Your task to perform on an android device: Search for sushi restaurants on Maps Image 0: 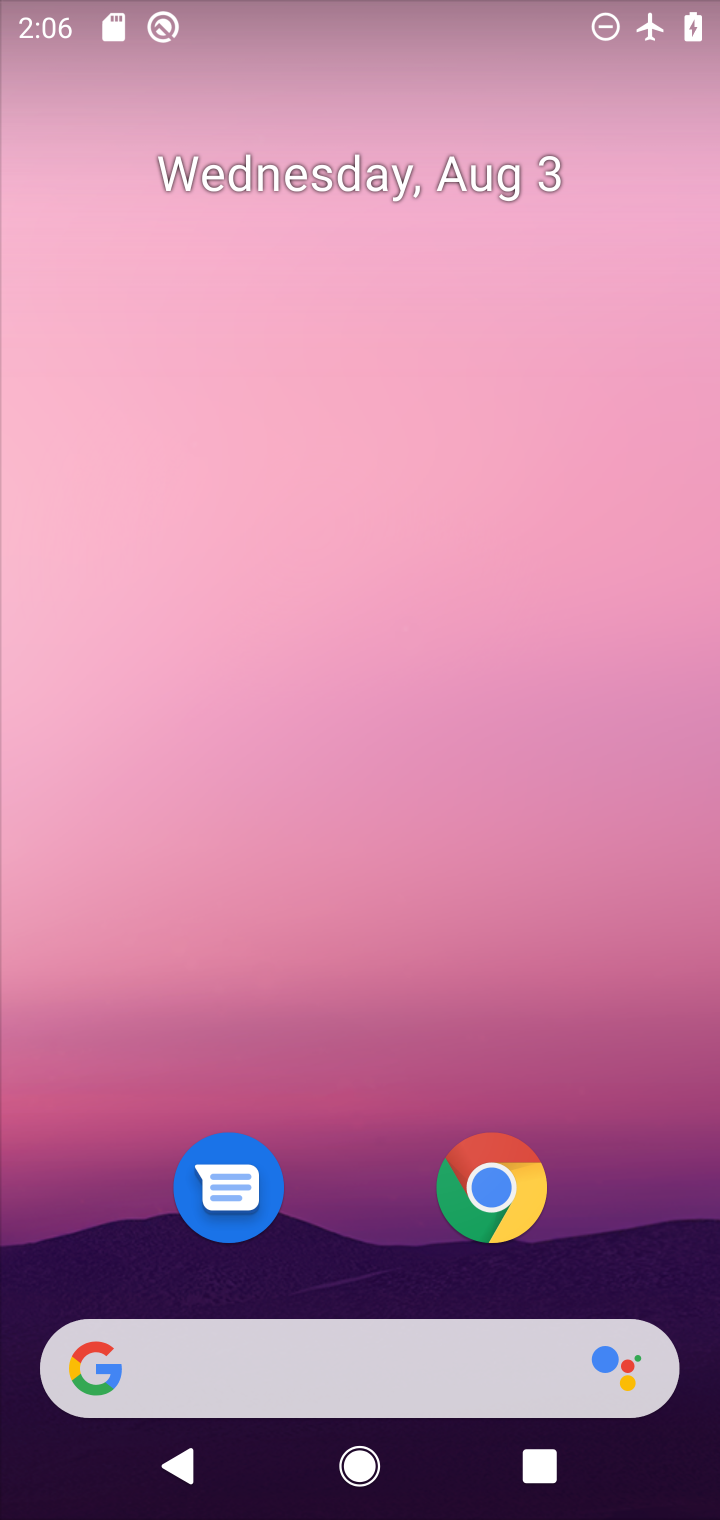
Step 0: click (520, 746)
Your task to perform on an android device: Search for sushi restaurants on Maps Image 1: 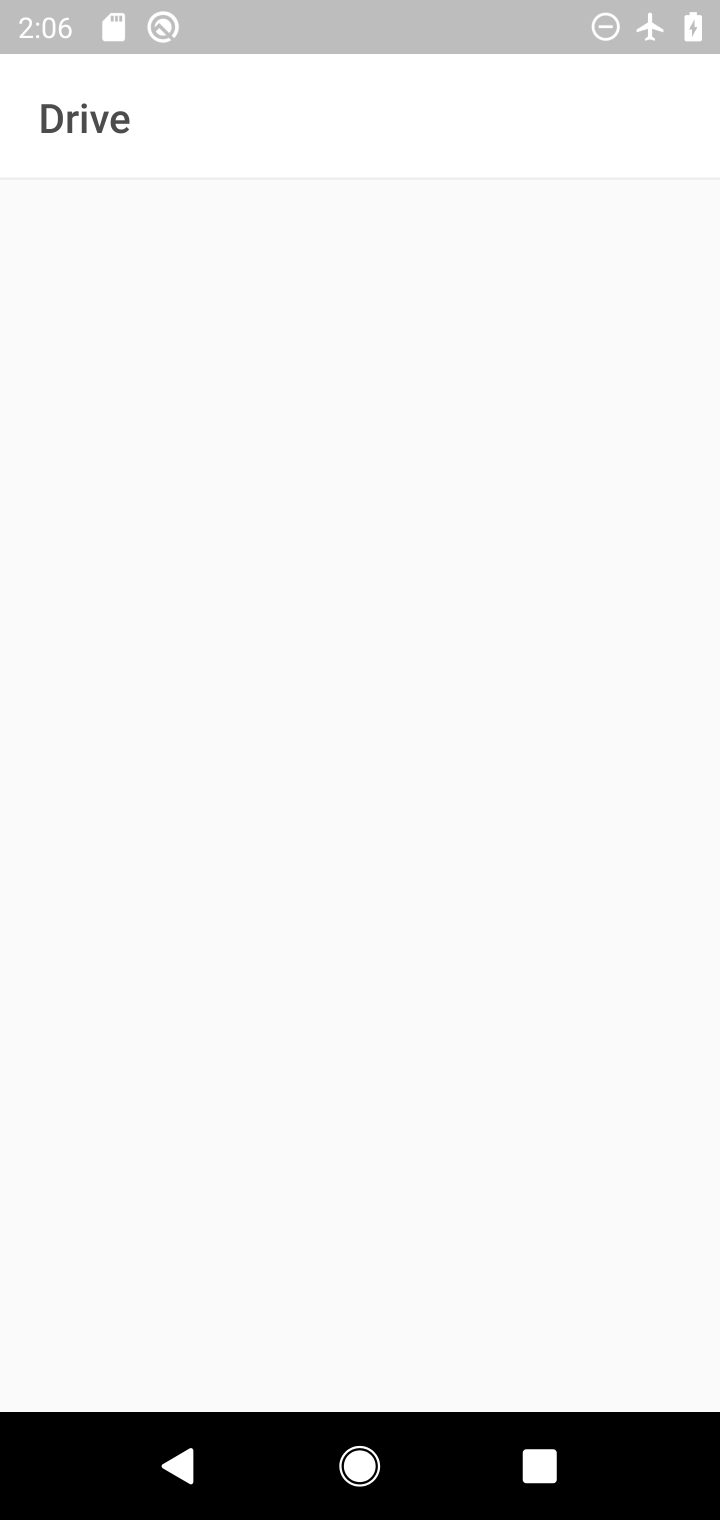
Step 1: press home button
Your task to perform on an android device: Search for sushi restaurants on Maps Image 2: 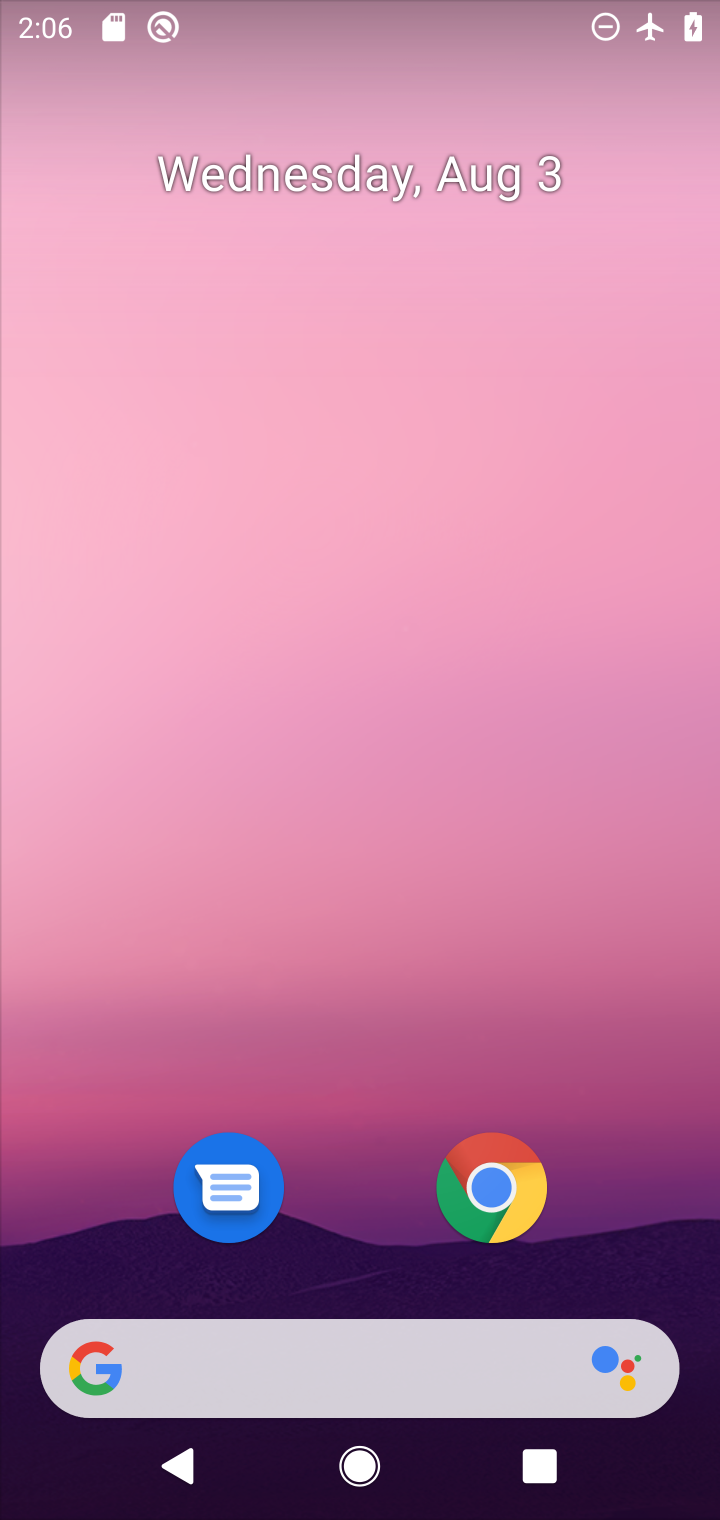
Step 2: drag from (401, 1092) to (523, 0)
Your task to perform on an android device: Search for sushi restaurants on Maps Image 3: 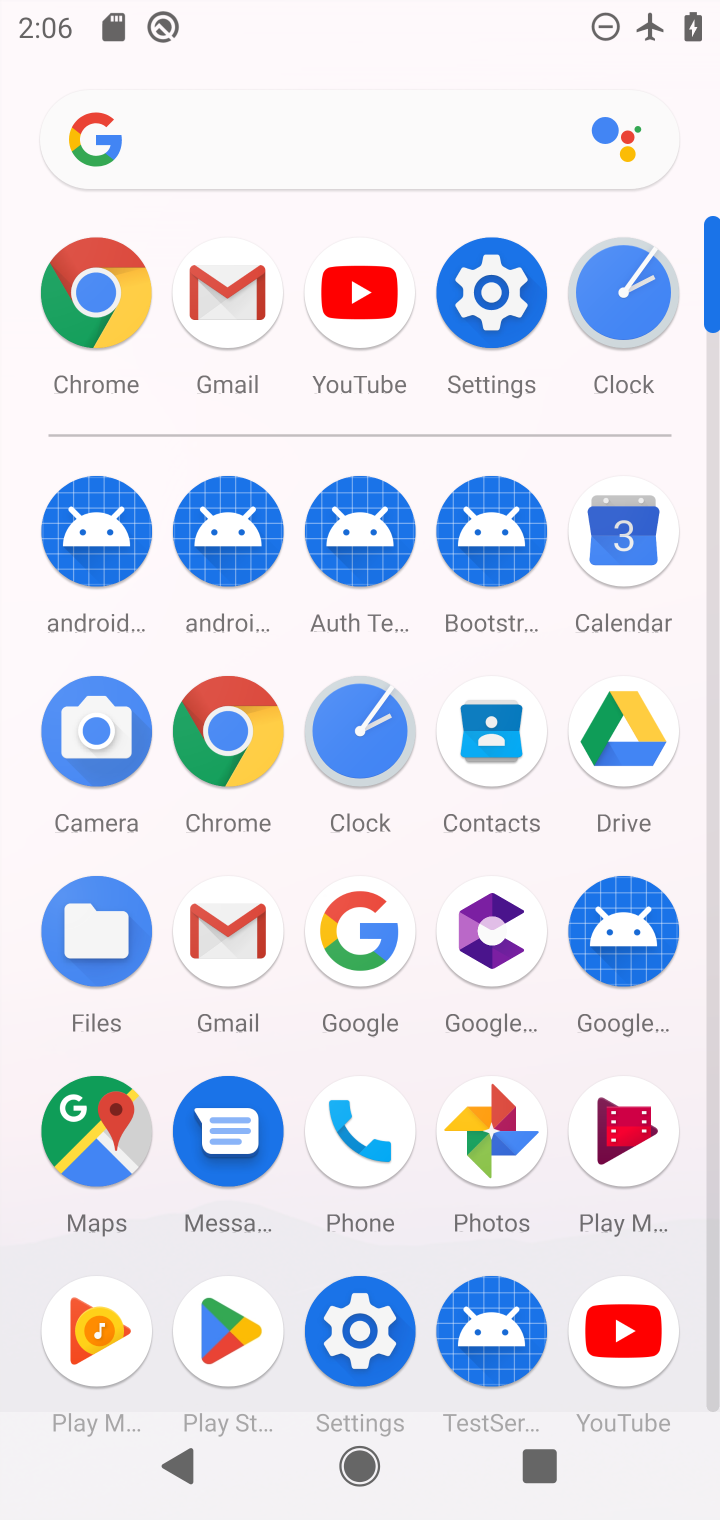
Step 3: click (105, 1146)
Your task to perform on an android device: Search for sushi restaurants on Maps Image 4: 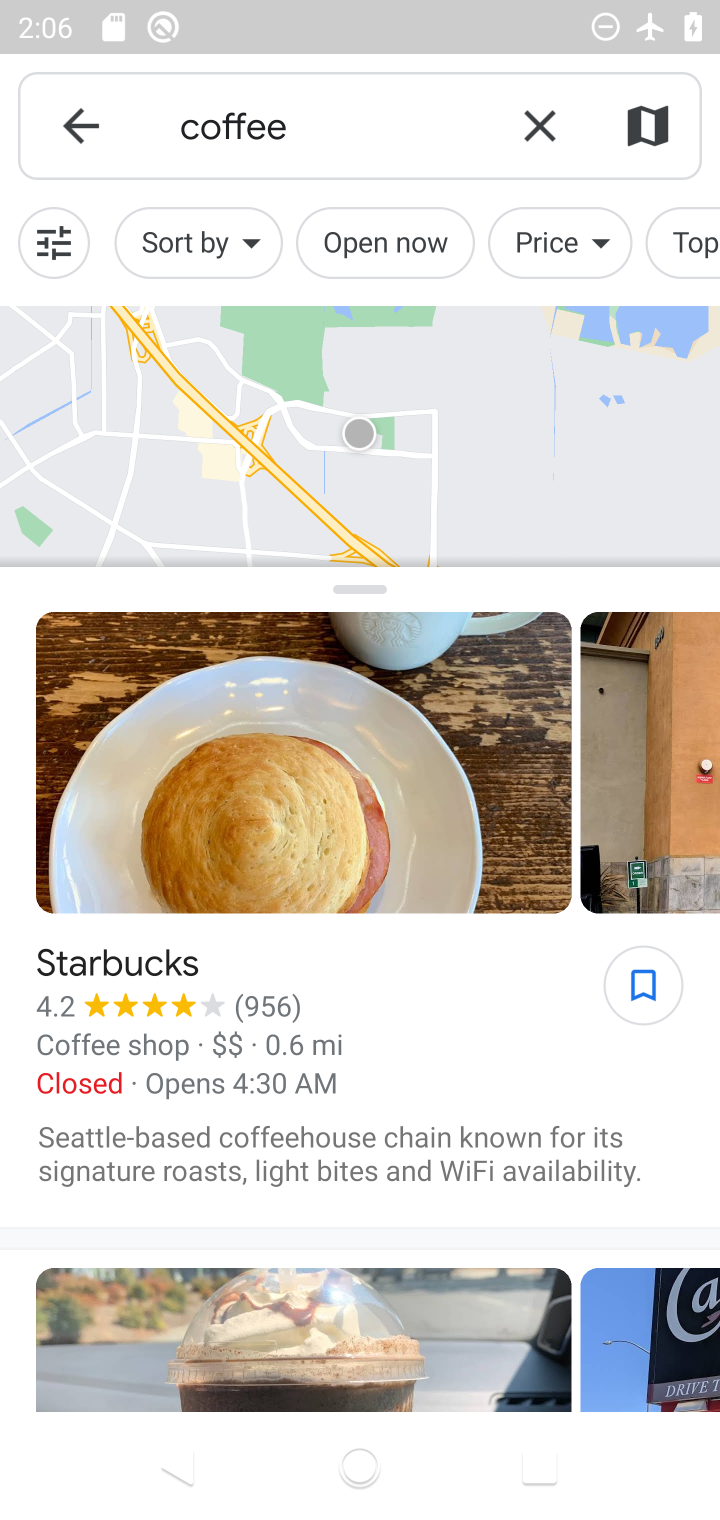
Step 4: click (516, 115)
Your task to perform on an android device: Search for sushi restaurants on Maps Image 5: 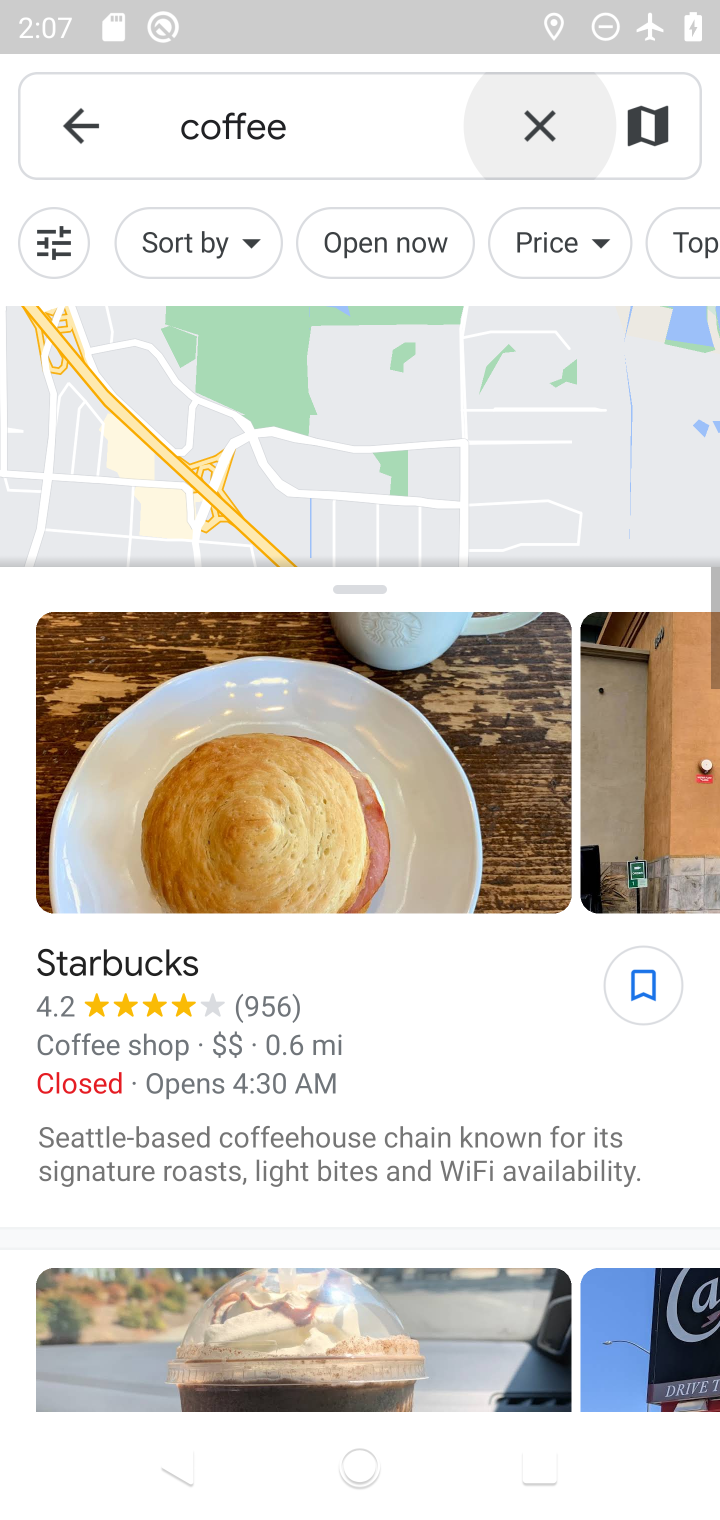
Step 5: click (369, 119)
Your task to perform on an android device: Search for sushi restaurants on Maps Image 6: 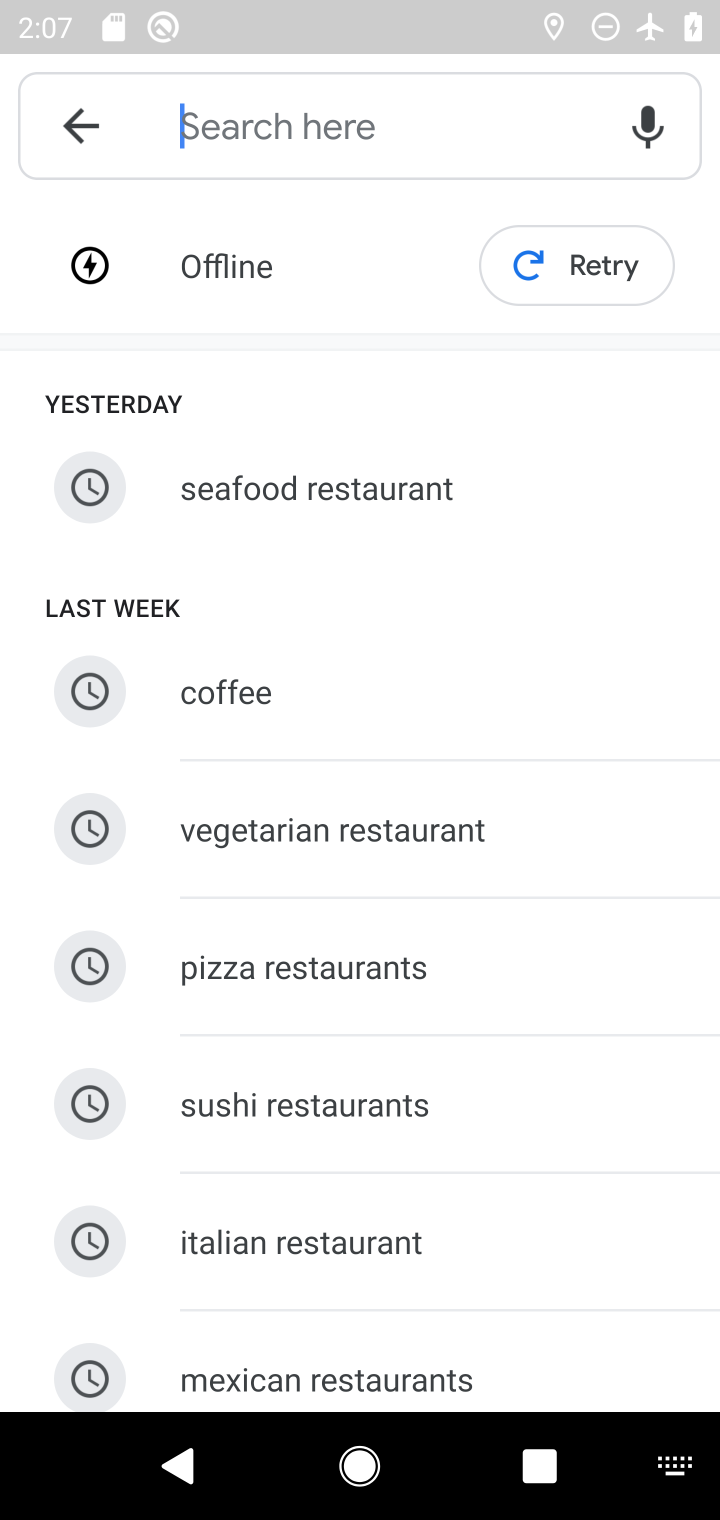
Step 6: click (325, 1097)
Your task to perform on an android device: Search for sushi restaurants on Maps Image 7: 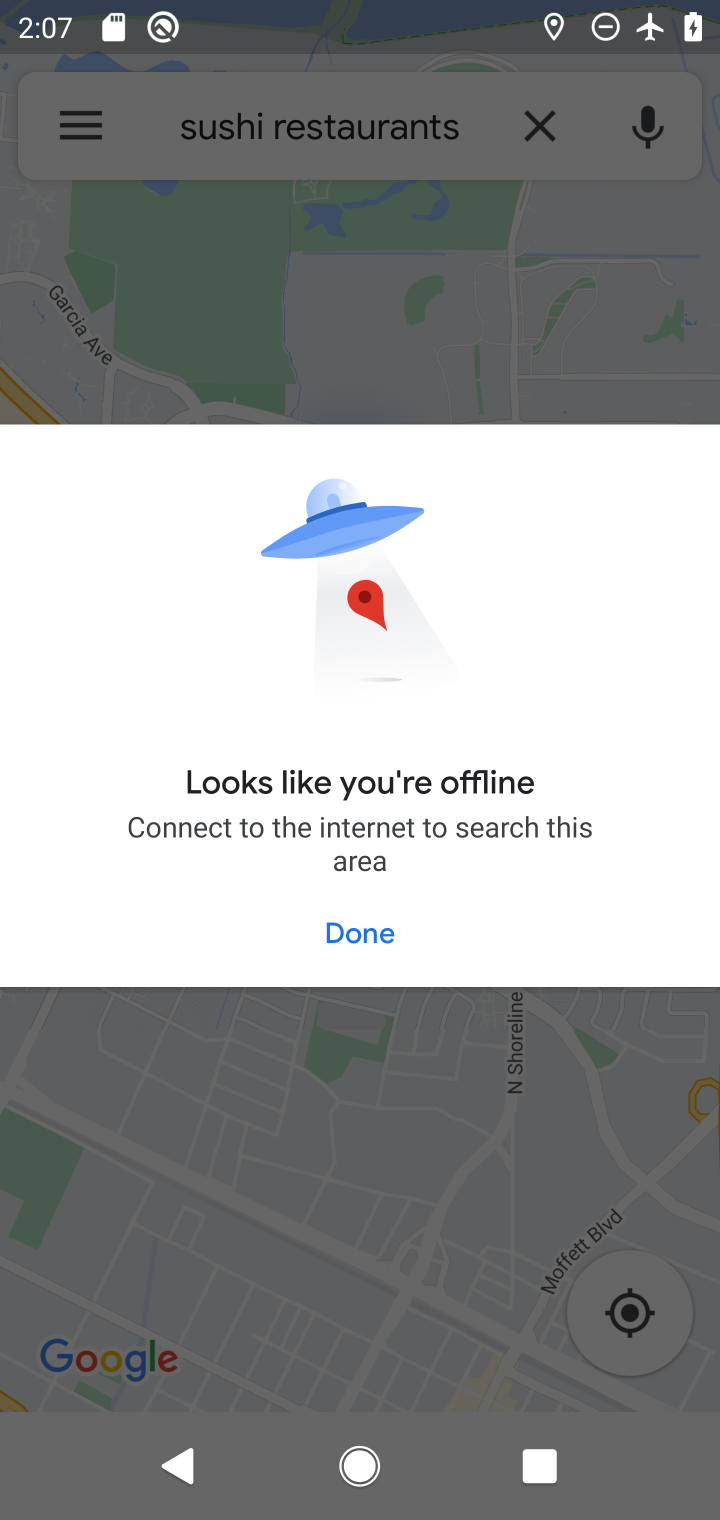
Step 7: task complete